Your task to perform on an android device: turn on translation in the chrome app Image 0: 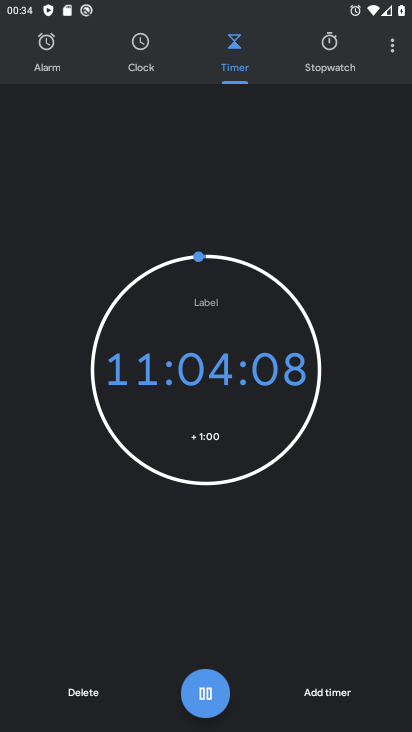
Step 0: press home button
Your task to perform on an android device: turn on translation in the chrome app Image 1: 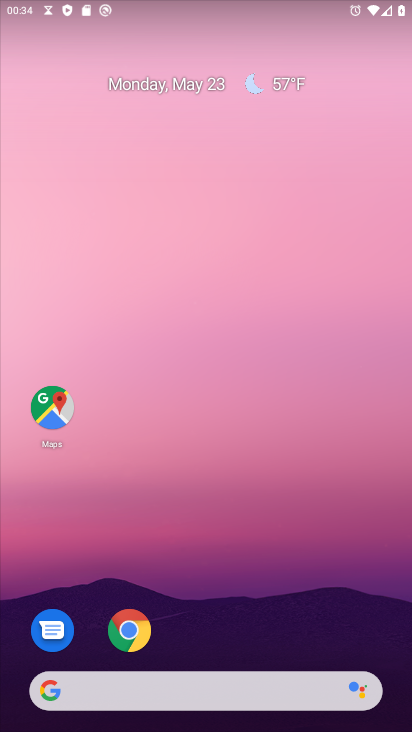
Step 1: click (127, 642)
Your task to perform on an android device: turn on translation in the chrome app Image 2: 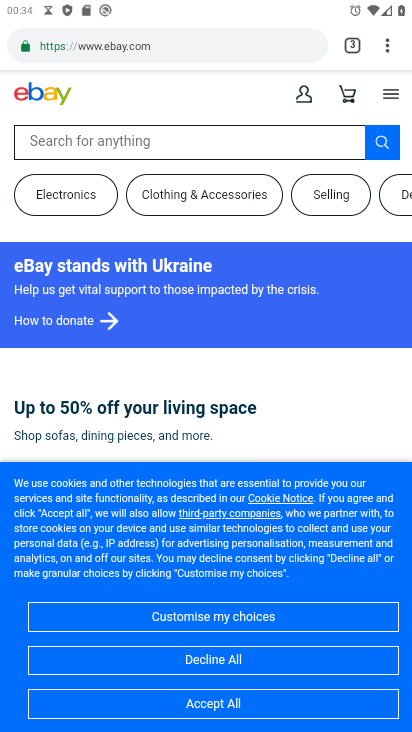
Step 2: click (379, 46)
Your task to perform on an android device: turn on translation in the chrome app Image 3: 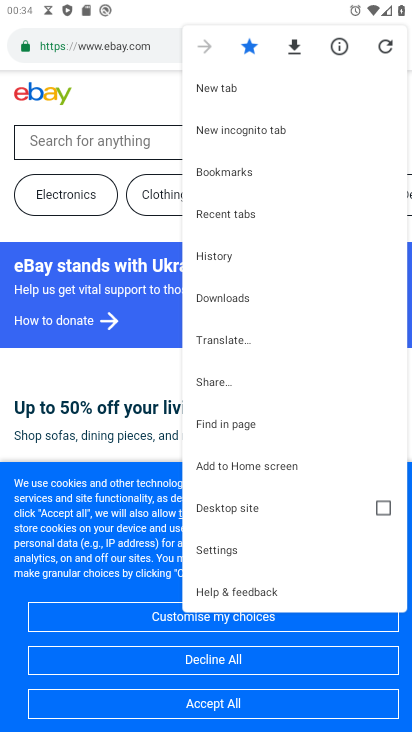
Step 3: click (261, 551)
Your task to perform on an android device: turn on translation in the chrome app Image 4: 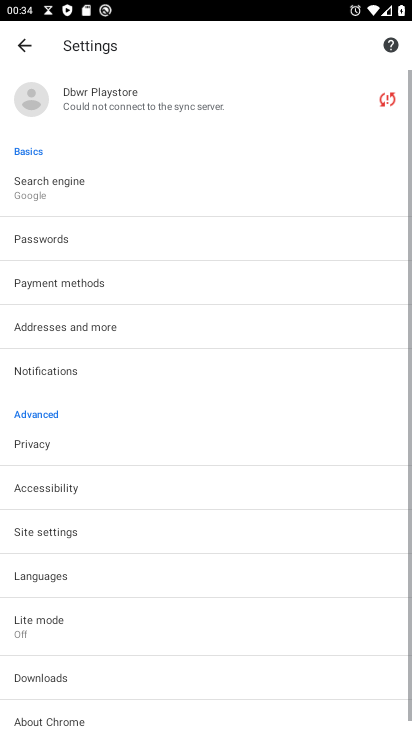
Step 4: click (90, 576)
Your task to perform on an android device: turn on translation in the chrome app Image 5: 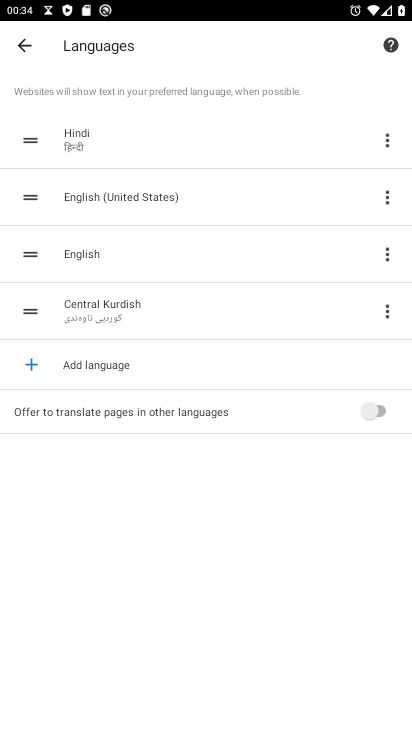
Step 5: click (377, 406)
Your task to perform on an android device: turn on translation in the chrome app Image 6: 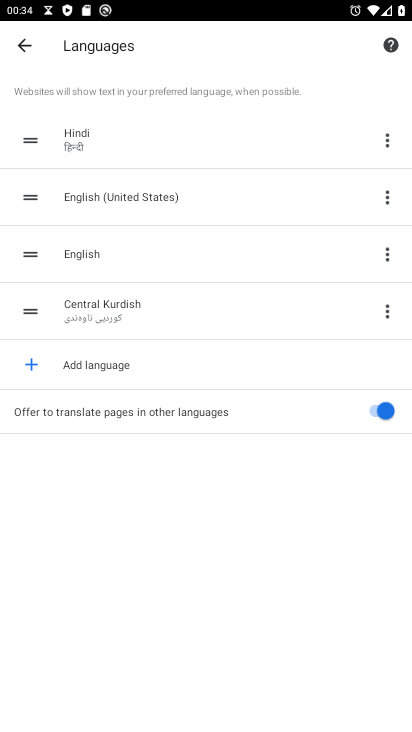
Step 6: task complete